Your task to perform on an android device: toggle wifi Image 0: 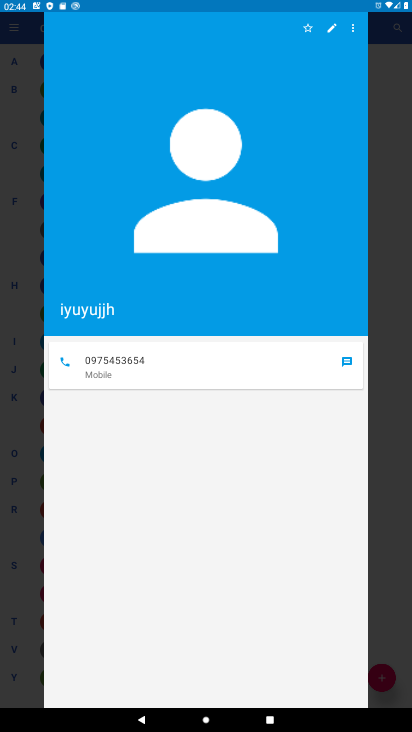
Step 0: press home button
Your task to perform on an android device: toggle wifi Image 1: 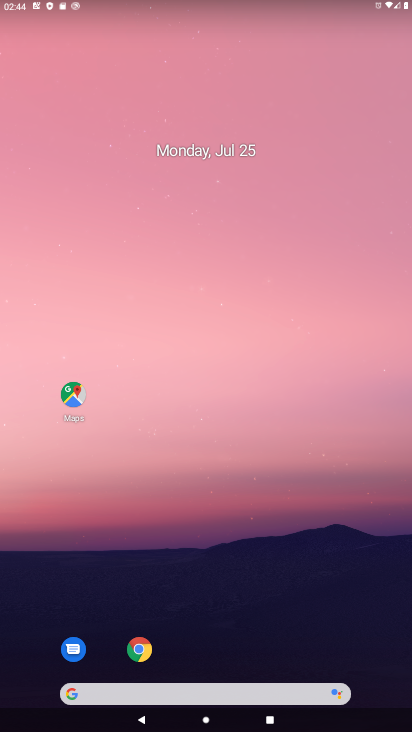
Step 1: drag from (384, 673) to (335, 114)
Your task to perform on an android device: toggle wifi Image 2: 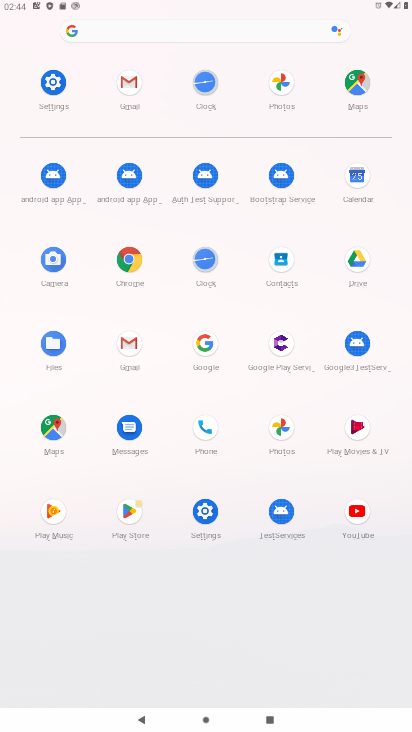
Step 2: click (206, 511)
Your task to perform on an android device: toggle wifi Image 3: 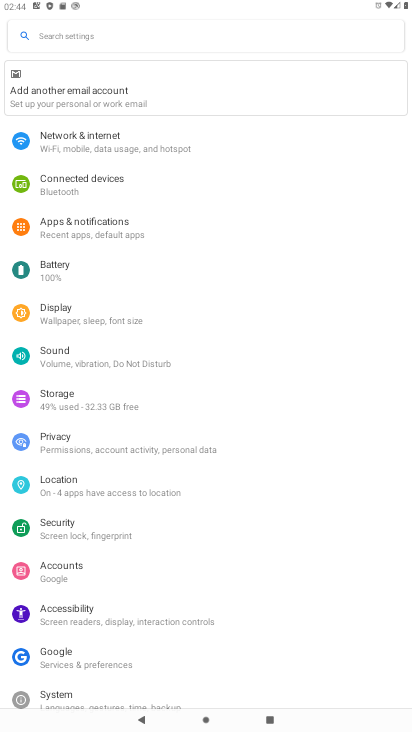
Step 3: click (73, 136)
Your task to perform on an android device: toggle wifi Image 4: 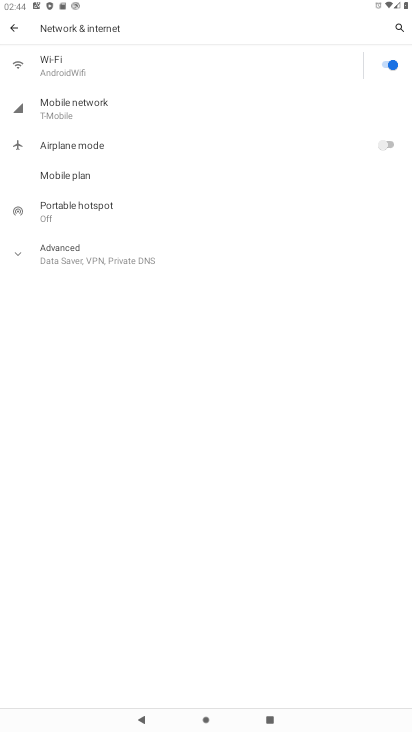
Step 4: click (383, 62)
Your task to perform on an android device: toggle wifi Image 5: 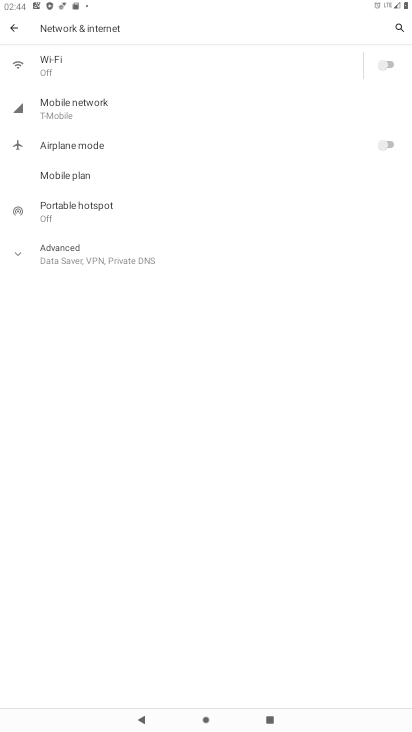
Step 5: task complete